Your task to perform on an android device: turn off picture-in-picture Image 0: 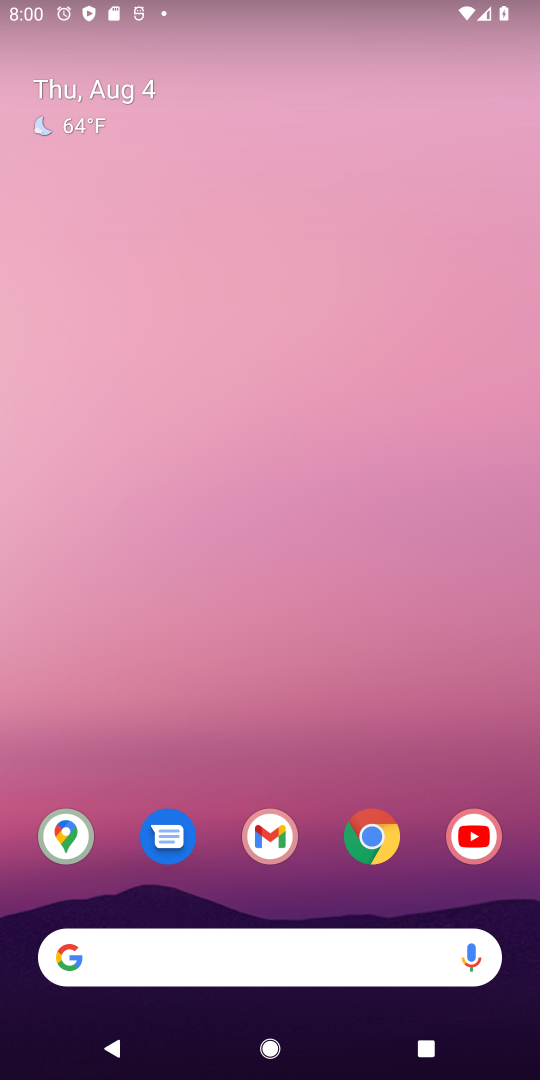
Step 0: drag from (164, 901) to (269, 108)
Your task to perform on an android device: turn off picture-in-picture Image 1: 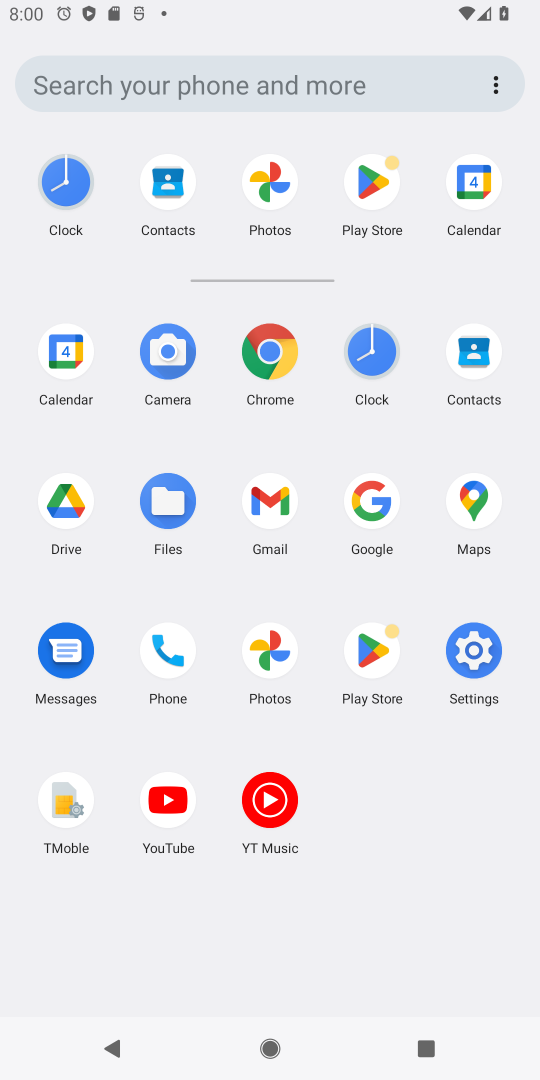
Step 1: click (482, 651)
Your task to perform on an android device: turn off picture-in-picture Image 2: 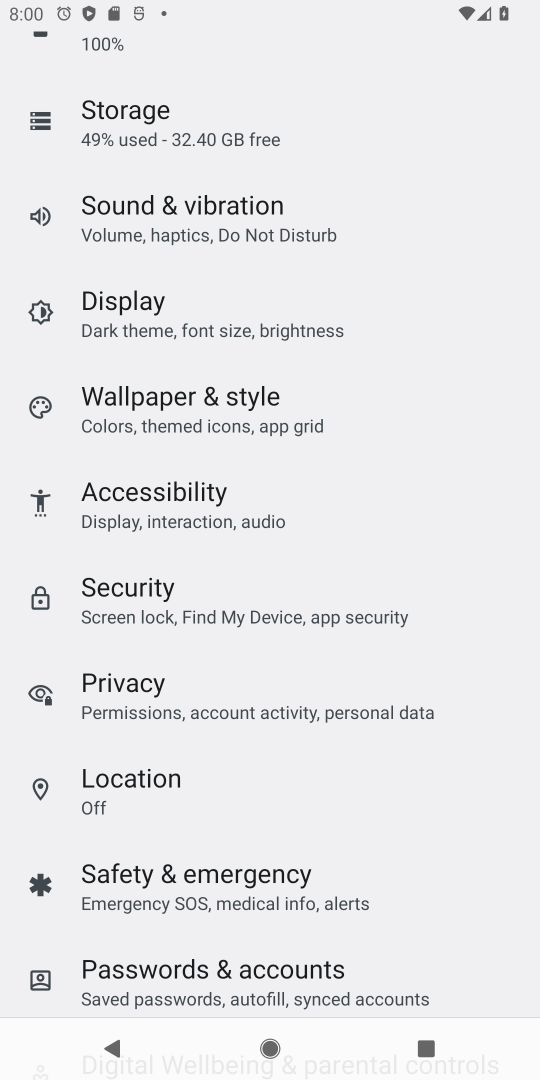
Step 2: drag from (336, 248) to (253, 1076)
Your task to perform on an android device: turn off picture-in-picture Image 3: 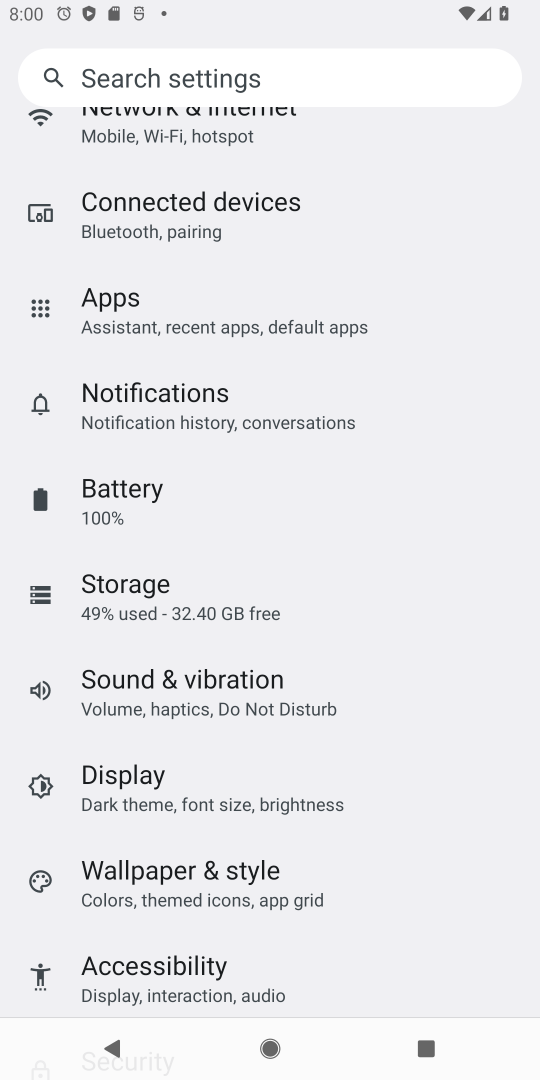
Step 3: drag from (394, 289) to (316, 1029)
Your task to perform on an android device: turn off picture-in-picture Image 4: 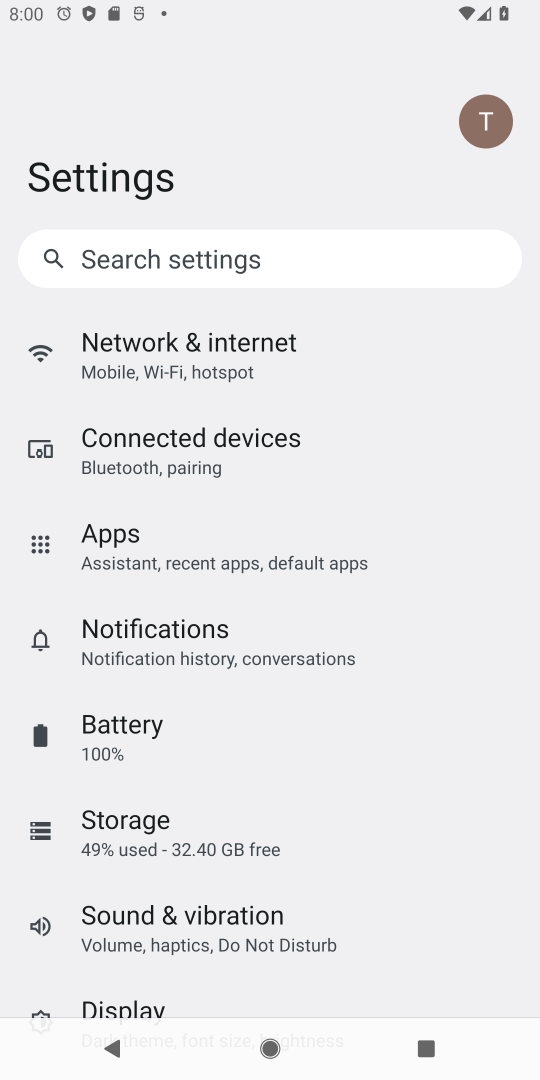
Step 4: click (198, 350)
Your task to perform on an android device: turn off picture-in-picture Image 5: 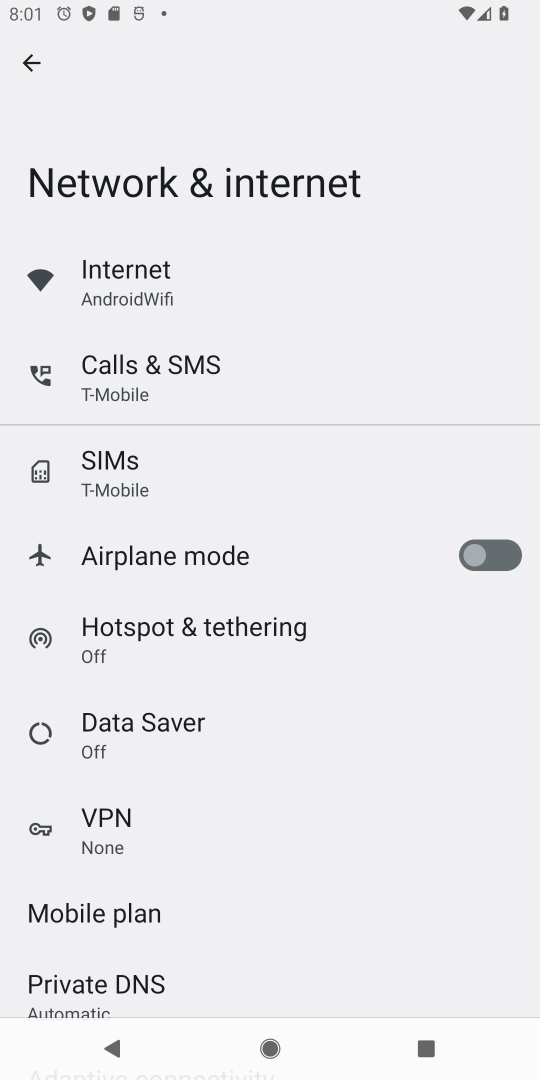
Step 5: drag from (227, 901) to (322, 202)
Your task to perform on an android device: turn off picture-in-picture Image 6: 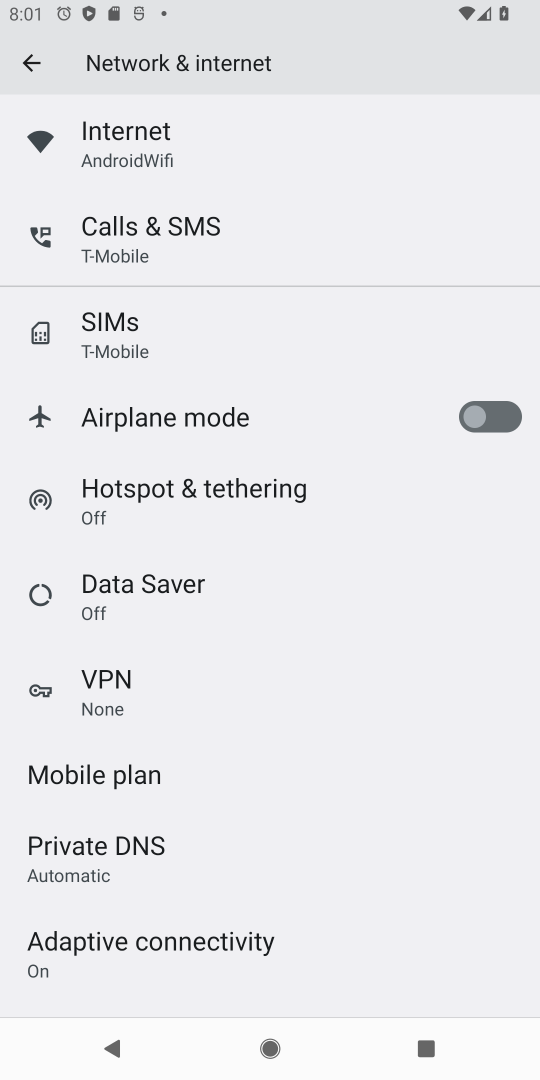
Step 6: drag from (313, 240) to (285, 918)
Your task to perform on an android device: turn off picture-in-picture Image 7: 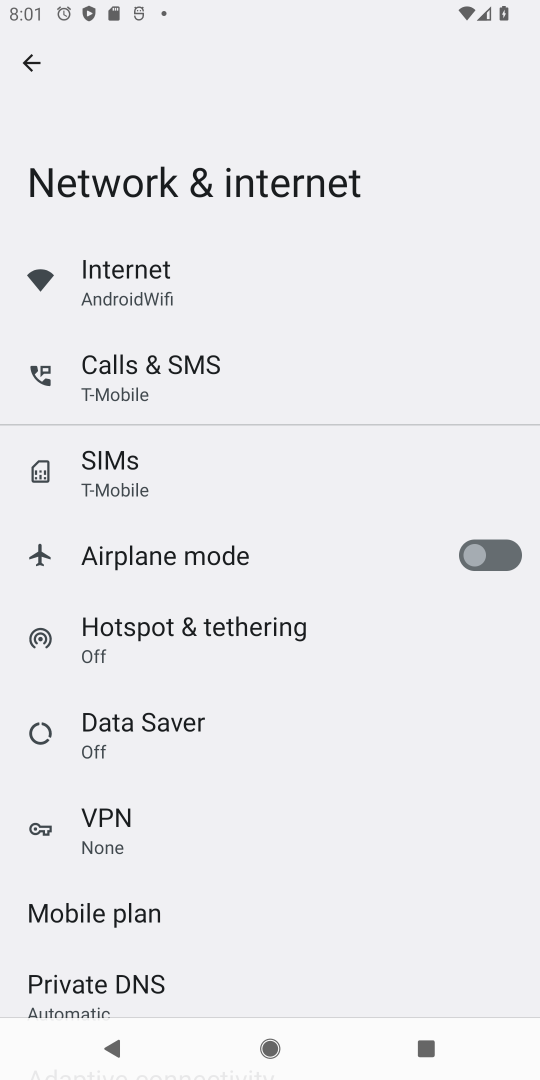
Step 7: drag from (247, 917) to (366, 172)
Your task to perform on an android device: turn off picture-in-picture Image 8: 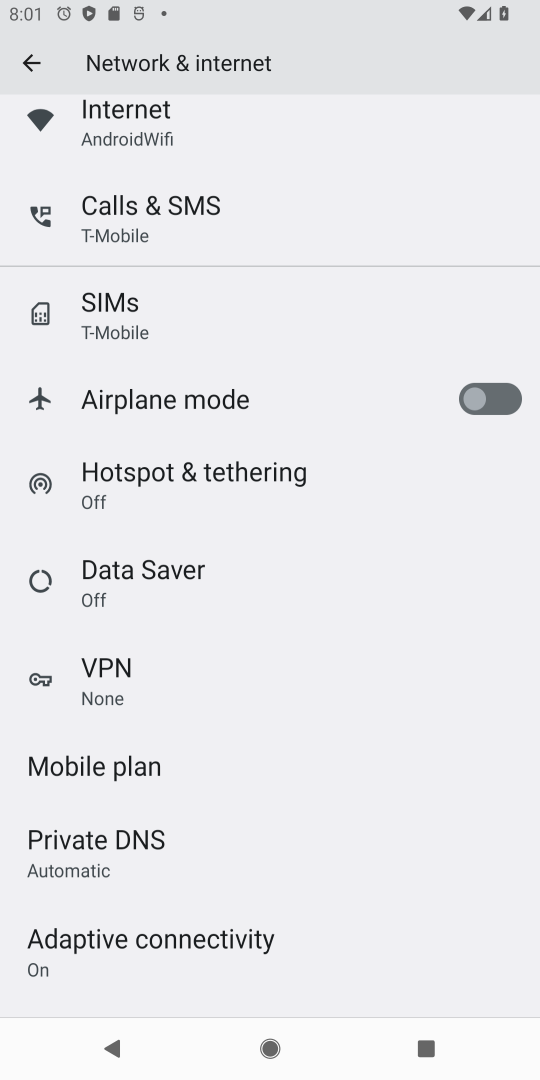
Step 8: click (12, 75)
Your task to perform on an android device: turn off picture-in-picture Image 9: 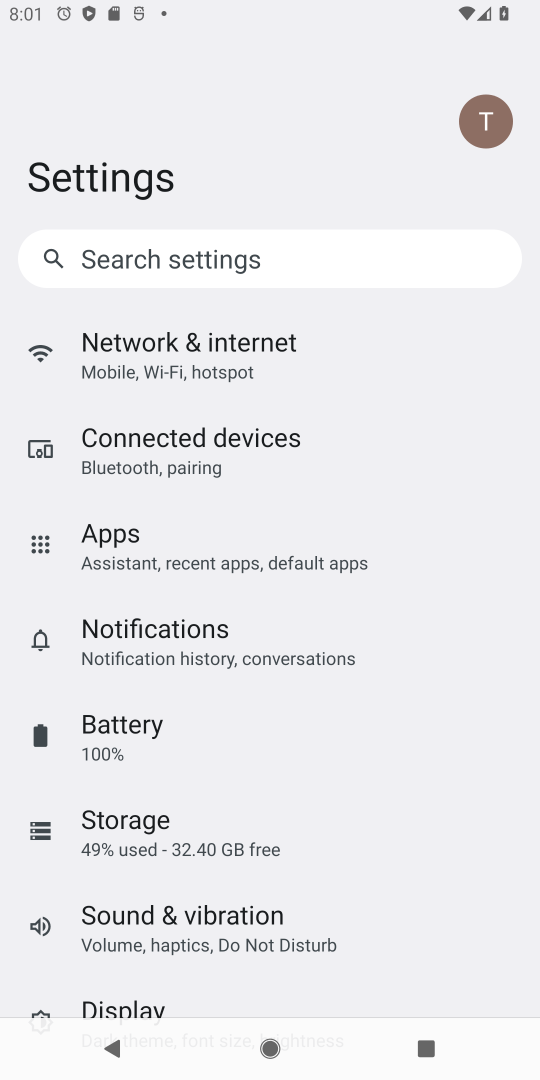
Step 9: click (256, 657)
Your task to perform on an android device: turn off picture-in-picture Image 10: 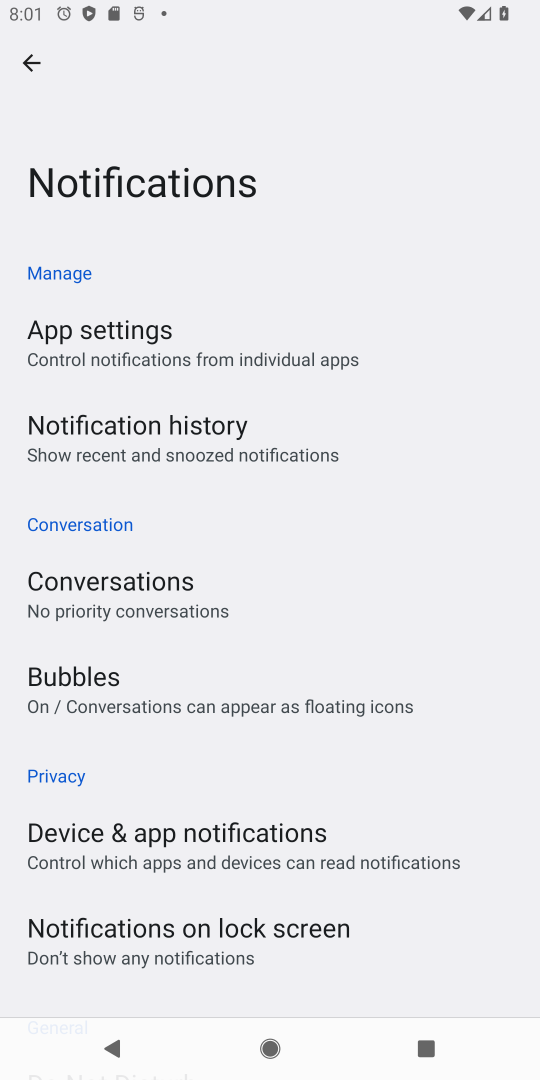
Step 10: drag from (287, 861) to (312, 78)
Your task to perform on an android device: turn off picture-in-picture Image 11: 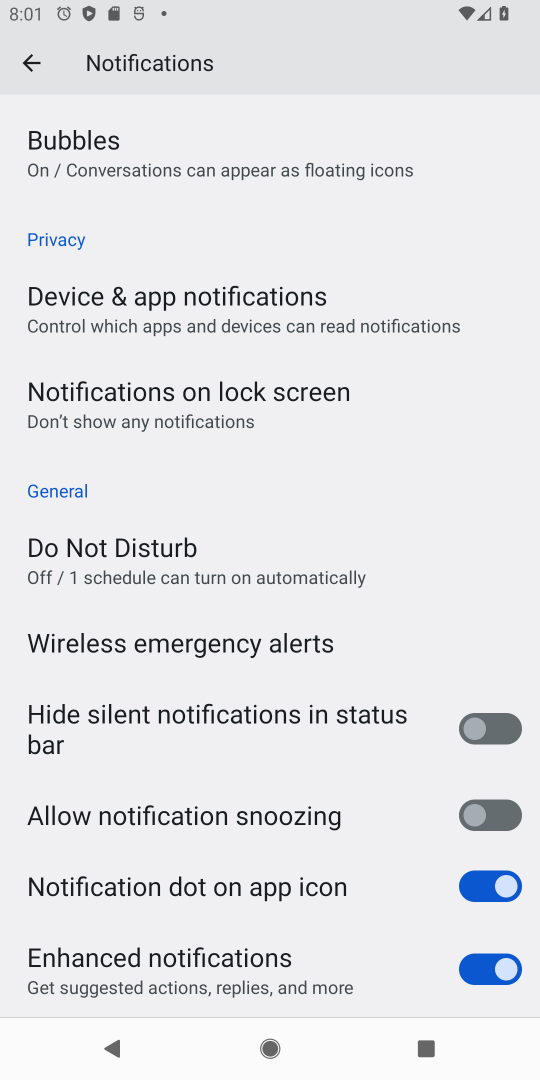
Step 11: click (197, 324)
Your task to perform on an android device: turn off picture-in-picture Image 12: 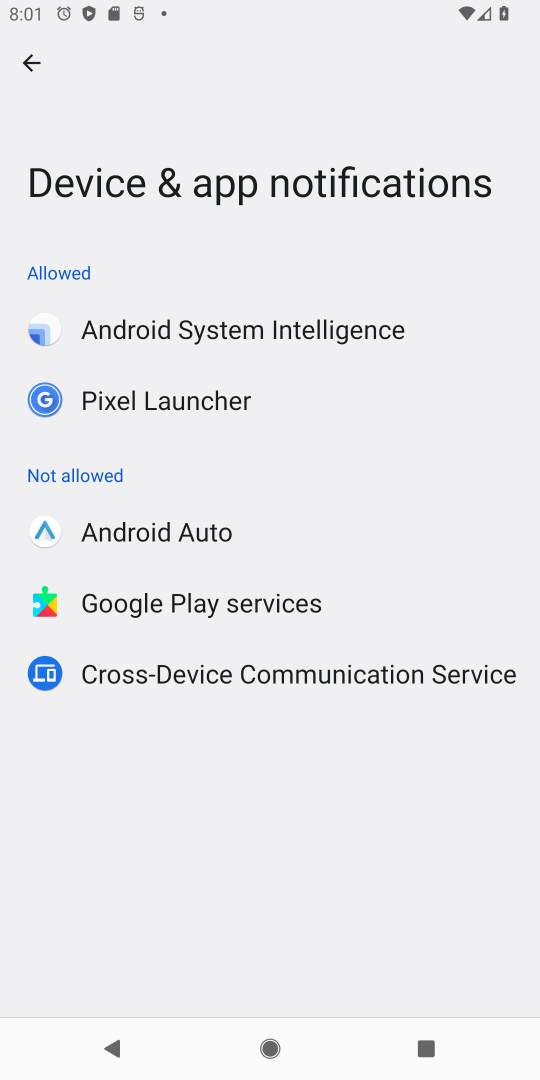
Step 12: click (30, 56)
Your task to perform on an android device: turn off picture-in-picture Image 13: 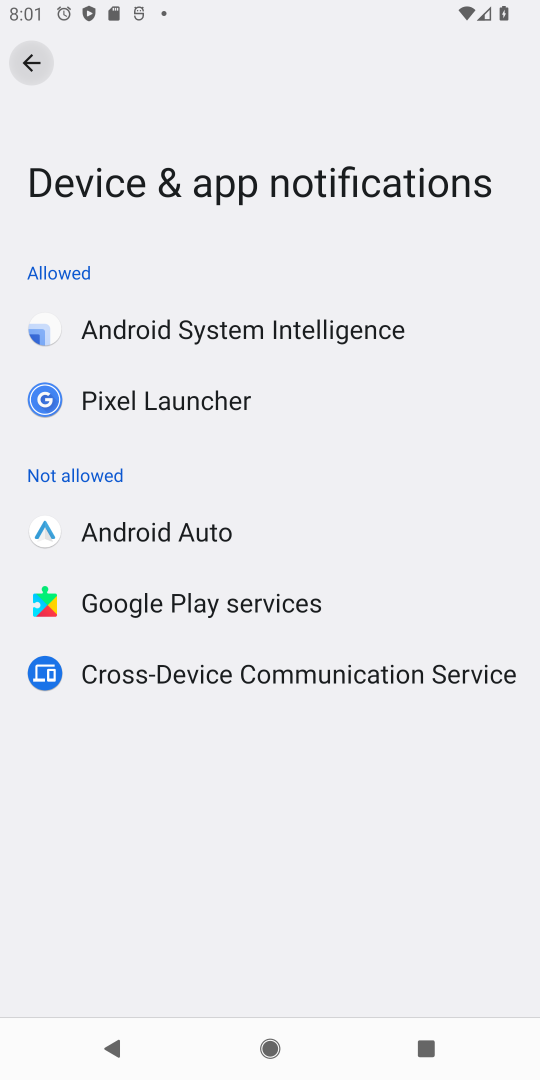
Step 13: task complete